Your task to perform on an android device: Add usb-c to usb-b to the cart on costco.com, then select checkout. Image 0: 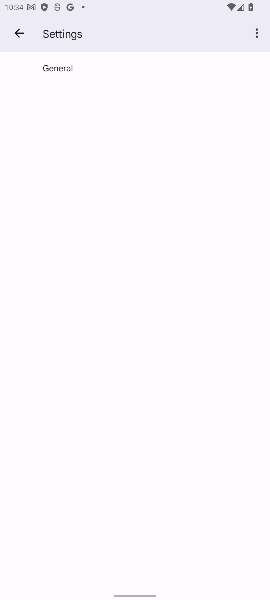
Step 0: press home button
Your task to perform on an android device: Add usb-c to usb-b to the cart on costco.com, then select checkout. Image 1: 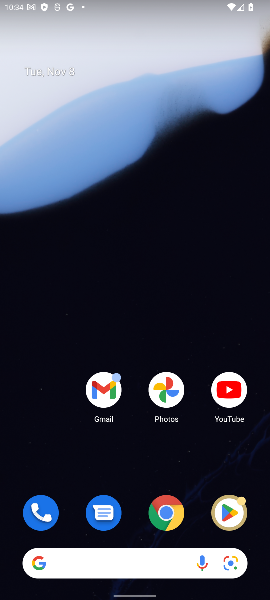
Step 1: click (167, 510)
Your task to perform on an android device: Add usb-c to usb-b to the cart on costco.com, then select checkout. Image 2: 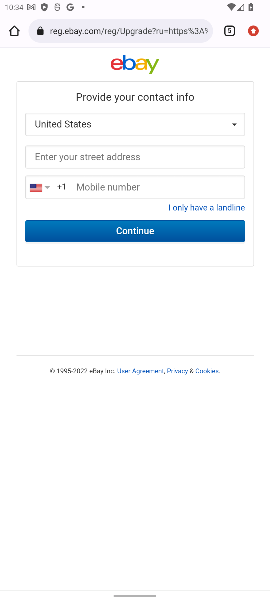
Step 2: click (230, 30)
Your task to perform on an android device: Add usb-c to usb-b to the cart on costco.com, then select checkout. Image 3: 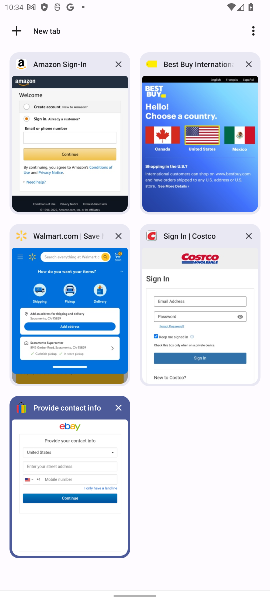
Step 3: click (208, 311)
Your task to perform on an android device: Add usb-c to usb-b to the cart on costco.com, then select checkout. Image 4: 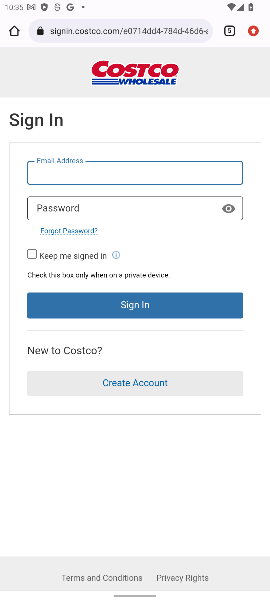
Step 4: press back button
Your task to perform on an android device: Add usb-c to usb-b to the cart on costco.com, then select checkout. Image 5: 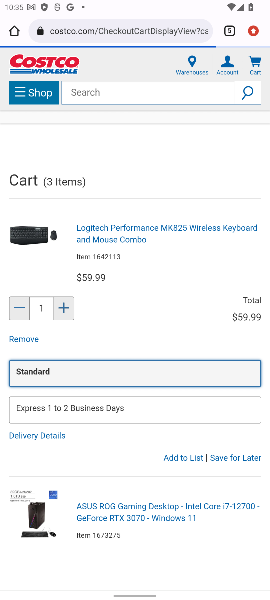
Step 5: click (105, 92)
Your task to perform on an android device: Add usb-c to usb-b to the cart on costco.com, then select checkout. Image 6: 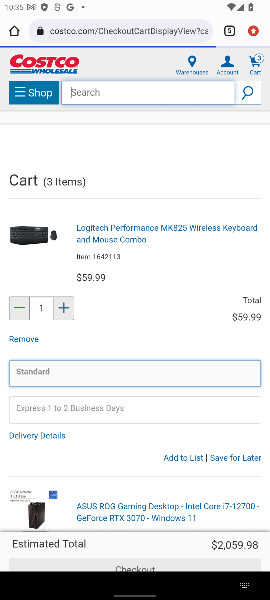
Step 6: type "usb-c to usb-b"
Your task to perform on an android device: Add usb-c to usb-b to the cart on costco.com, then select checkout. Image 7: 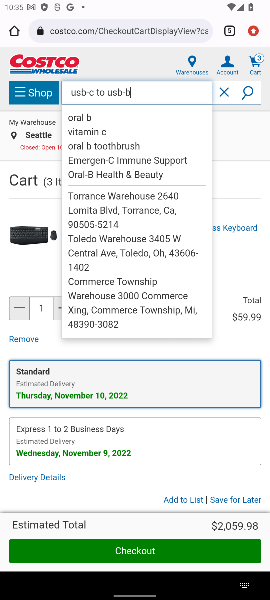
Step 7: click (247, 92)
Your task to perform on an android device: Add usb-c to usb-b to the cart on costco.com, then select checkout. Image 8: 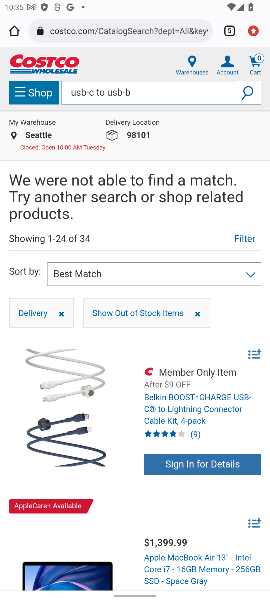
Step 8: drag from (168, 486) to (174, 243)
Your task to perform on an android device: Add usb-c to usb-b to the cart on costco.com, then select checkout. Image 9: 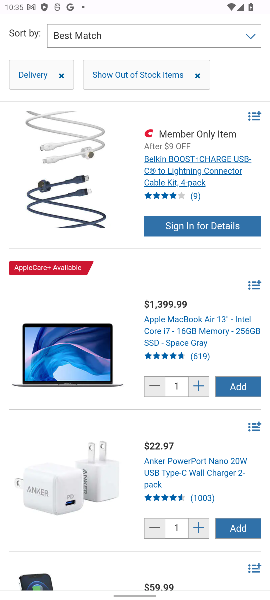
Step 9: click (206, 173)
Your task to perform on an android device: Add usb-c to usb-b to the cart on costco.com, then select checkout. Image 10: 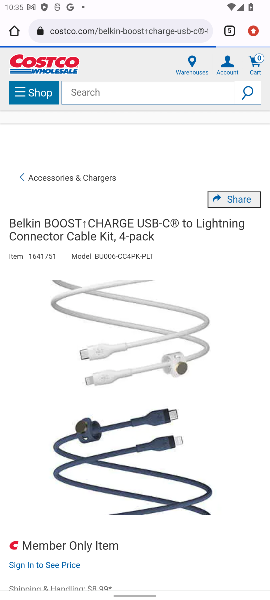
Step 10: drag from (200, 465) to (204, 191)
Your task to perform on an android device: Add usb-c to usb-b to the cart on costco.com, then select checkout. Image 11: 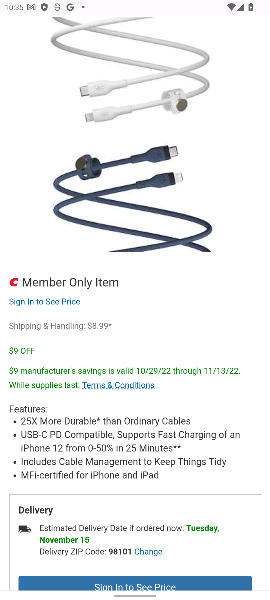
Step 11: drag from (181, 441) to (144, 200)
Your task to perform on an android device: Add usb-c to usb-b to the cart on costco.com, then select checkout. Image 12: 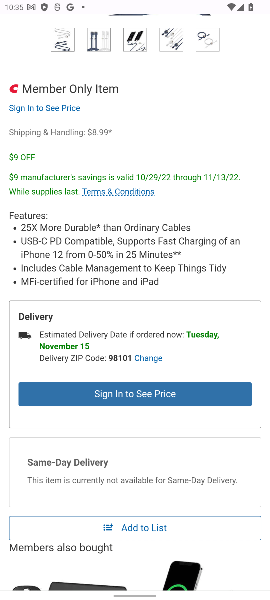
Step 12: click (140, 488)
Your task to perform on an android device: Add usb-c to usb-b to the cart on costco.com, then select checkout. Image 13: 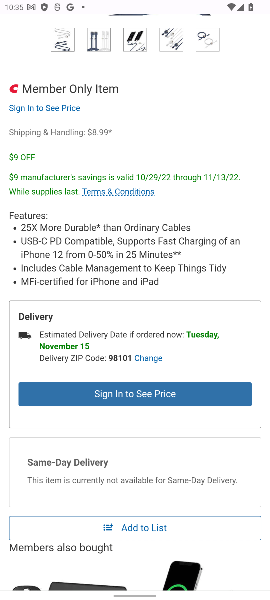
Step 13: drag from (159, 458) to (155, 210)
Your task to perform on an android device: Add usb-c to usb-b to the cart on costco.com, then select checkout. Image 14: 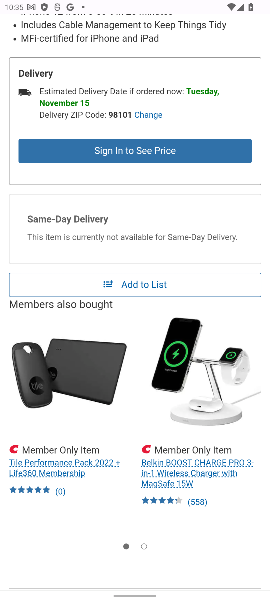
Step 14: click (145, 280)
Your task to perform on an android device: Add usb-c to usb-b to the cart on costco.com, then select checkout. Image 15: 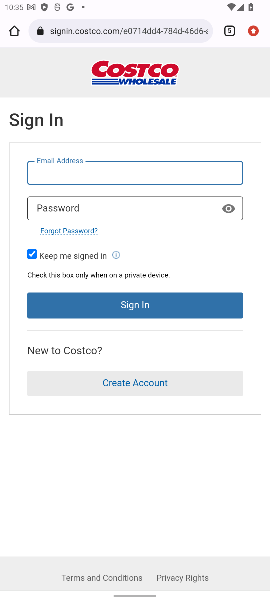
Step 15: task complete